Your task to perform on an android device: set the timer Image 0: 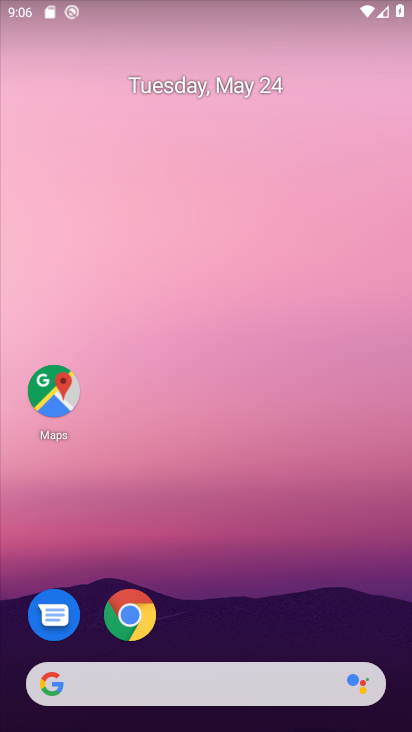
Step 0: drag from (383, 630) to (399, 168)
Your task to perform on an android device: set the timer Image 1: 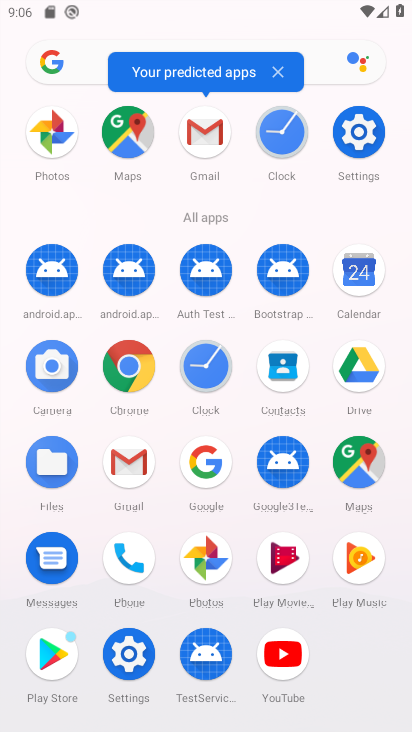
Step 1: click (219, 370)
Your task to perform on an android device: set the timer Image 2: 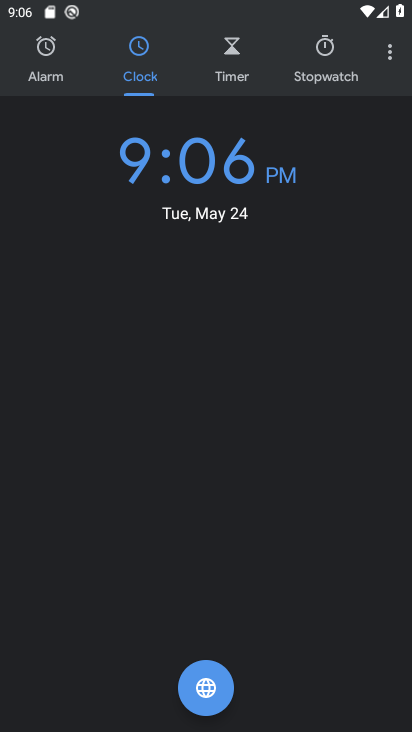
Step 2: click (254, 86)
Your task to perform on an android device: set the timer Image 3: 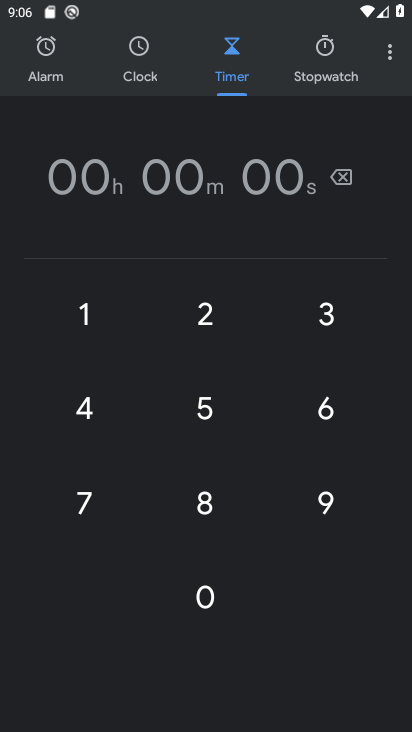
Step 3: click (212, 416)
Your task to perform on an android device: set the timer Image 4: 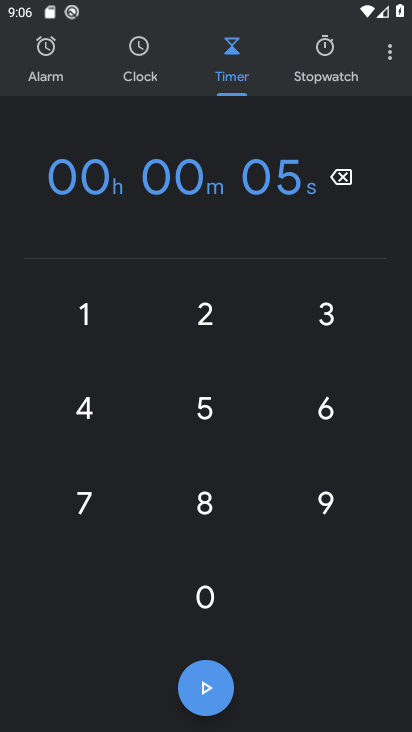
Step 4: task complete